Your task to perform on an android device: delete location history Image 0: 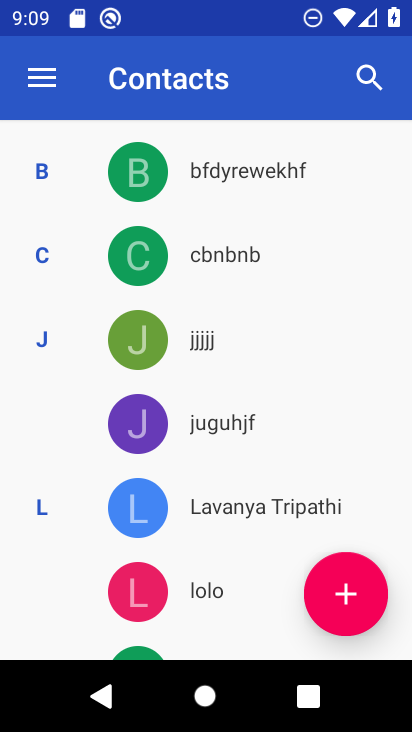
Step 0: press home button
Your task to perform on an android device: delete location history Image 1: 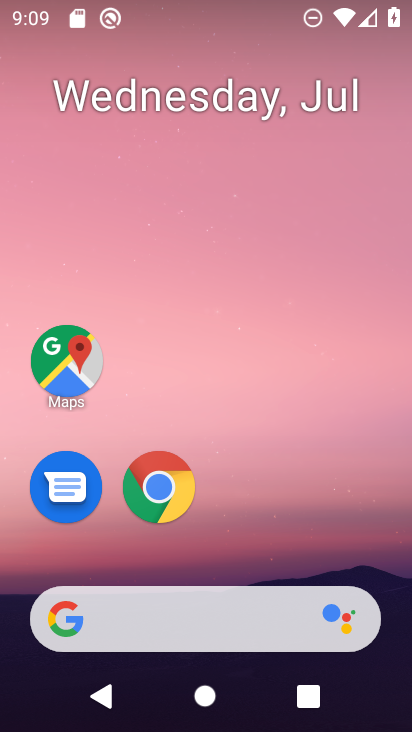
Step 1: drag from (377, 520) to (375, 137)
Your task to perform on an android device: delete location history Image 2: 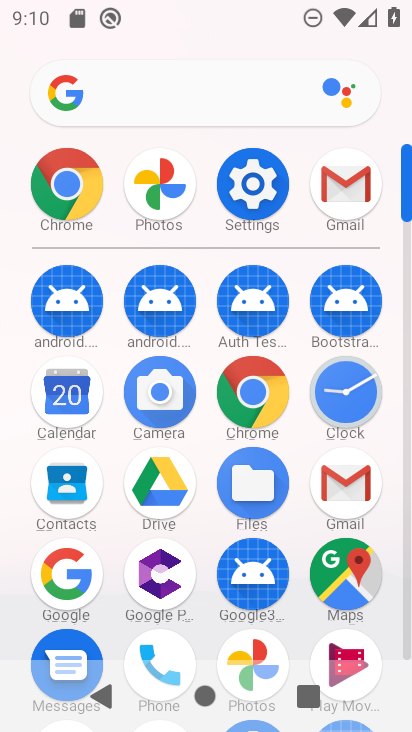
Step 2: click (346, 571)
Your task to perform on an android device: delete location history Image 3: 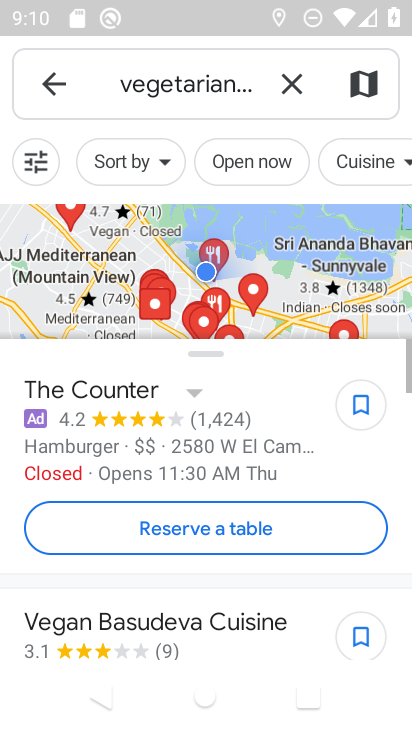
Step 3: press back button
Your task to perform on an android device: delete location history Image 4: 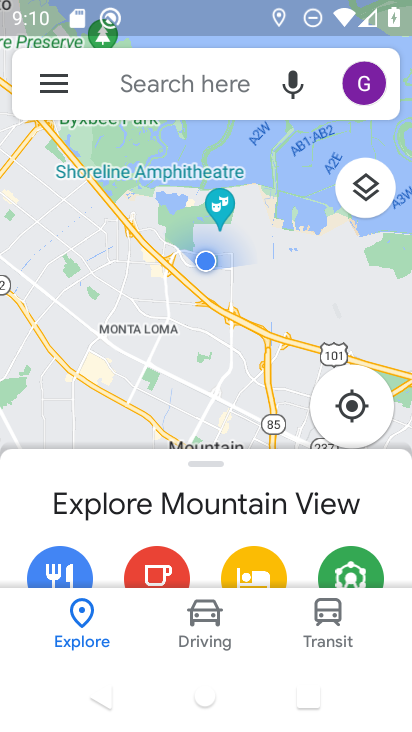
Step 4: click (50, 83)
Your task to perform on an android device: delete location history Image 5: 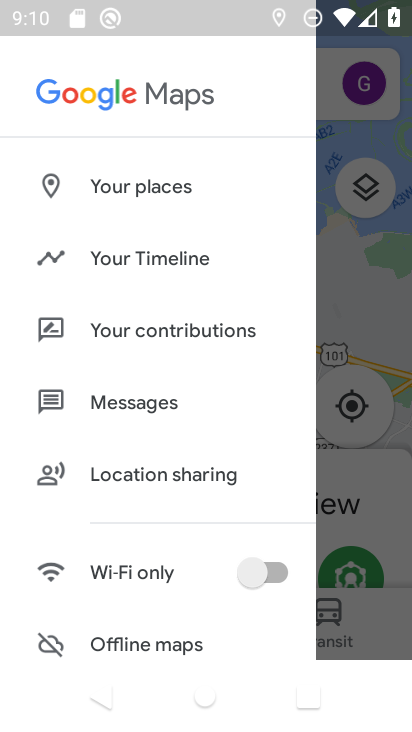
Step 5: click (142, 254)
Your task to perform on an android device: delete location history Image 6: 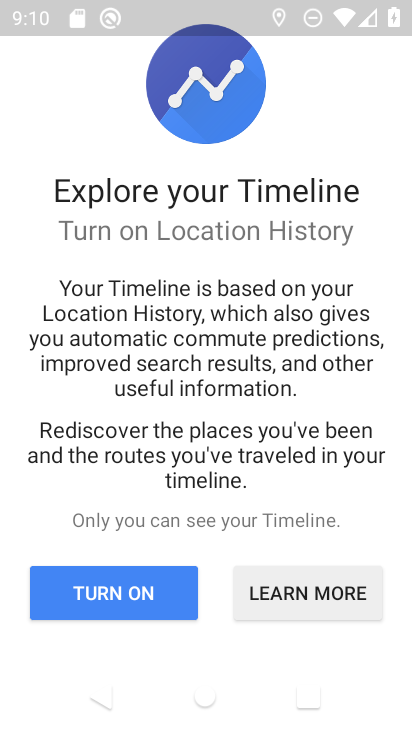
Step 6: drag from (237, 646) to (242, 465)
Your task to perform on an android device: delete location history Image 7: 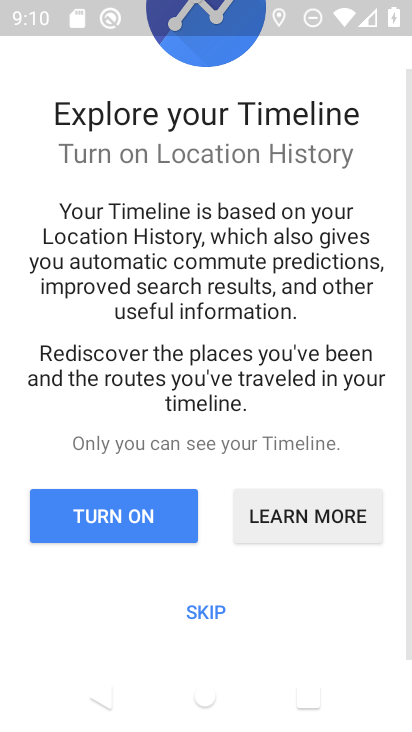
Step 7: click (240, 615)
Your task to perform on an android device: delete location history Image 8: 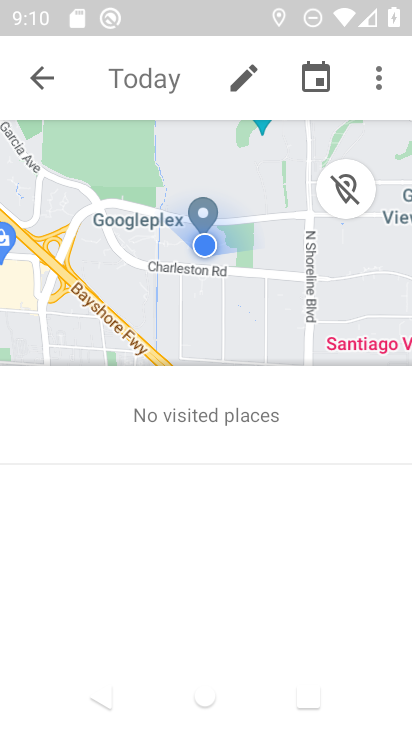
Step 8: click (377, 83)
Your task to perform on an android device: delete location history Image 9: 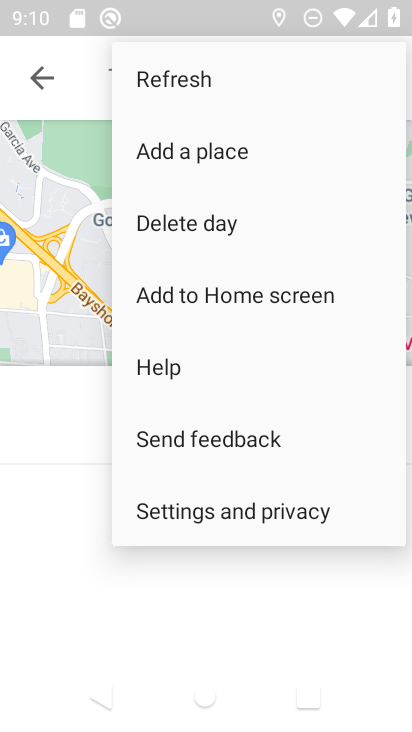
Step 9: click (343, 508)
Your task to perform on an android device: delete location history Image 10: 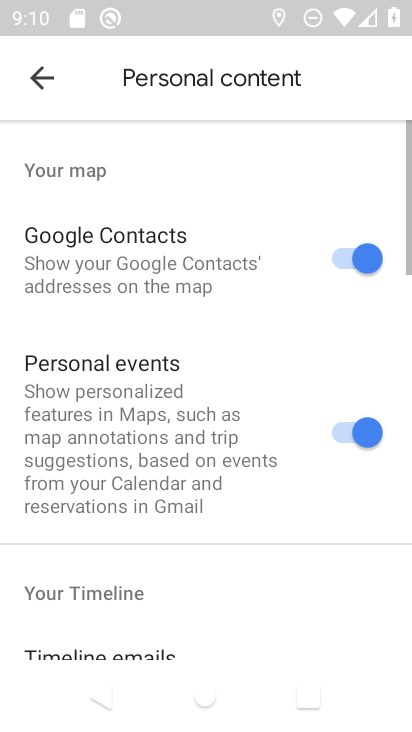
Step 10: drag from (343, 533) to (342, 465)
Your task to perform on an android device: delete location history Image 11: 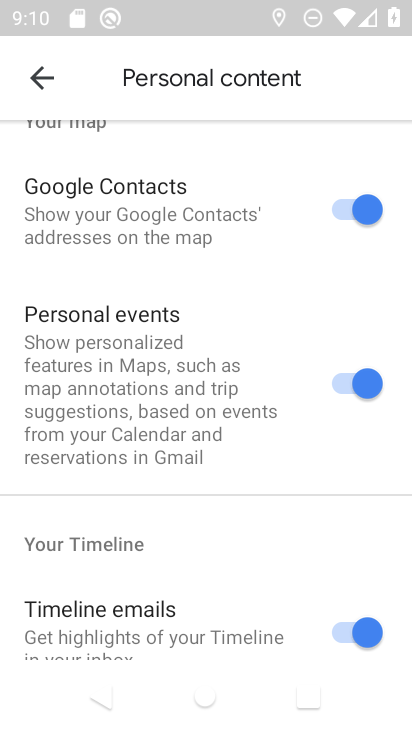
Step 11: drag from (334, 519) to (334, 429)
Your task to perform on an android device: delete location history Image 12: 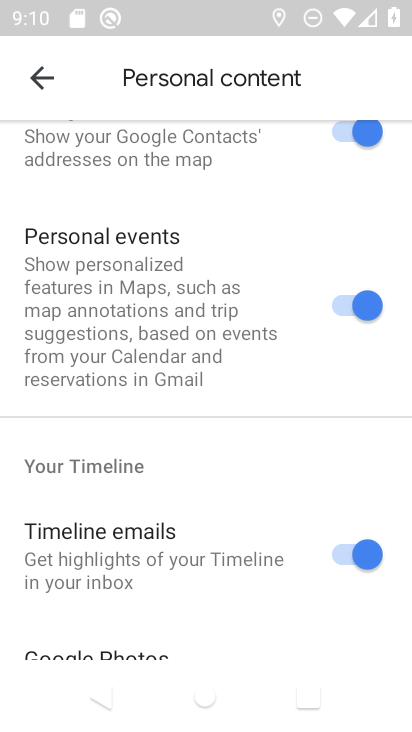
Step 12: drag from (318, 542) to (317, 433)
Your task to perform on an android device: delete location history Image 13: 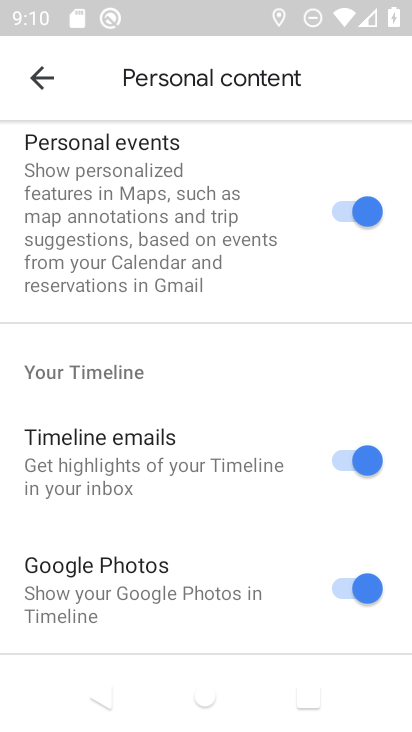
Step 13: drag from (295, 588) to (299, 478)
Your task to perform on an android device: delete location history Image 14: 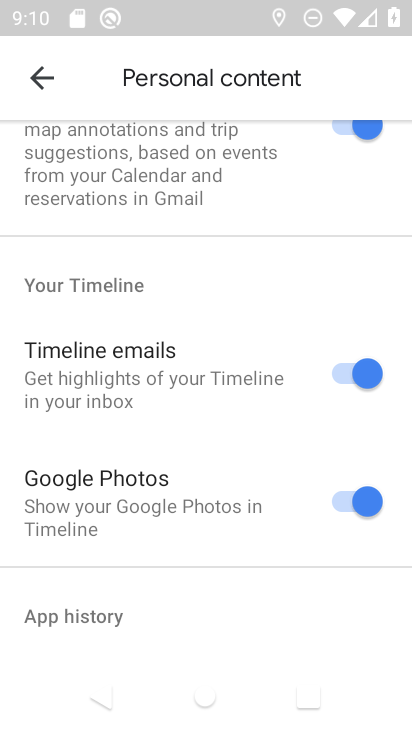
Step 14: drag from (297, 567) to (298, 513)
Your task to perform on an android device: delete location history Image 15: 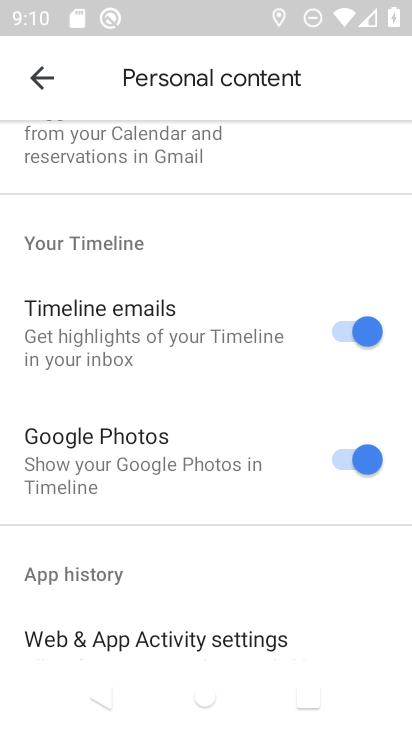
Step 15: drag from (291, 578) to (290, 508)
Your task to perform on an android device: delete location history Image 16: 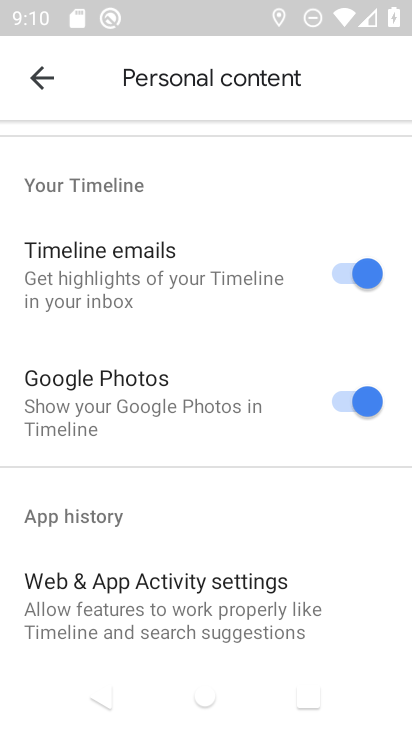
Step 16: drag from (257, 511) to (267, 417)
Your task to perform on an android device: delete location history Image 17: 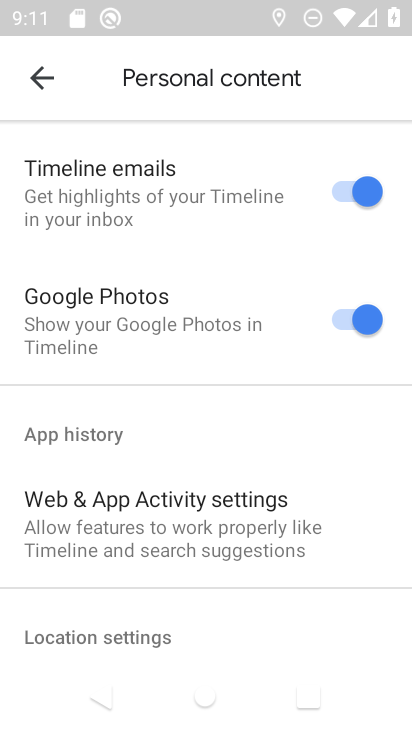
Step 17: drag from (283, 595) to (284, 467)
Your task to perform on an android device: delete location history Image 18: 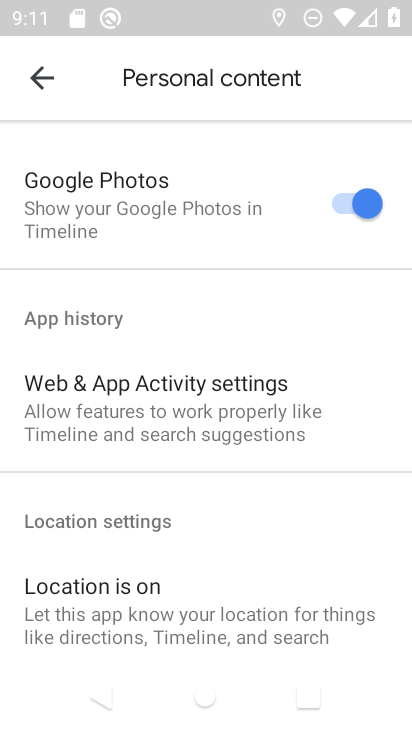
Step 18: drag from (266, 584) to (272, 336)
Your task to perform on an android device: delete location history Image 19: 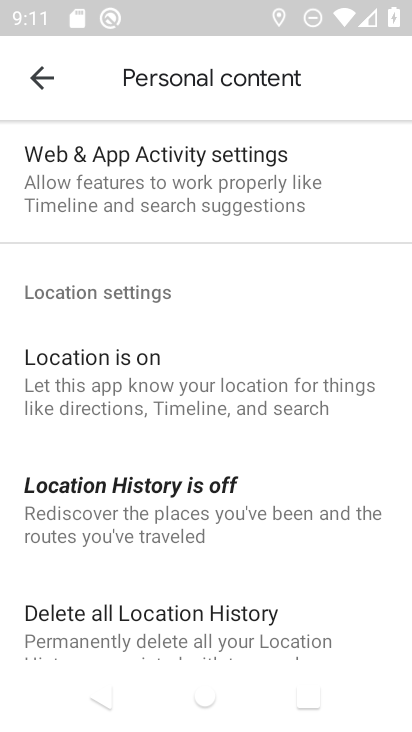
Step 19: drag from (293, 567) to (294, 419)
Your task to perform on an android device: delete location history Image 20: 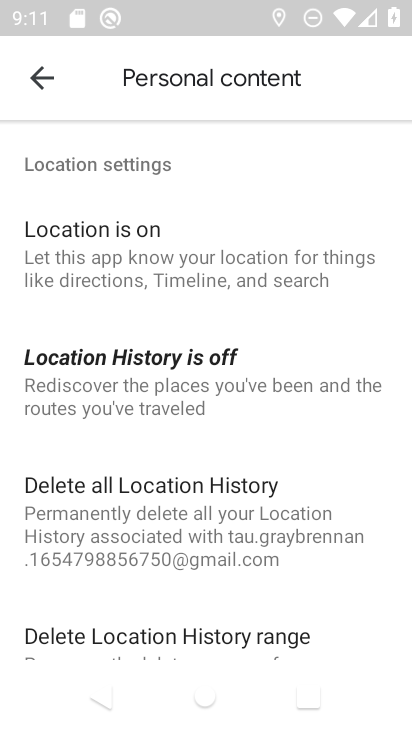
Step 20: click (280, 524)
Your task to perform on an android device: delete location history Image 21: 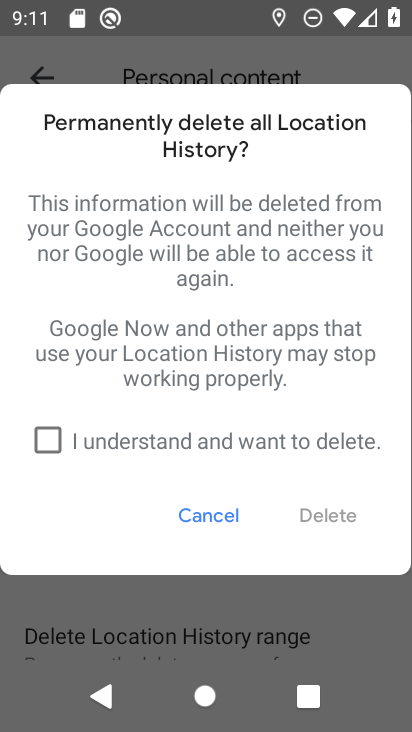
Step 21: click (49, 434)
Your task to perform on an android device: delete location history Image 22: 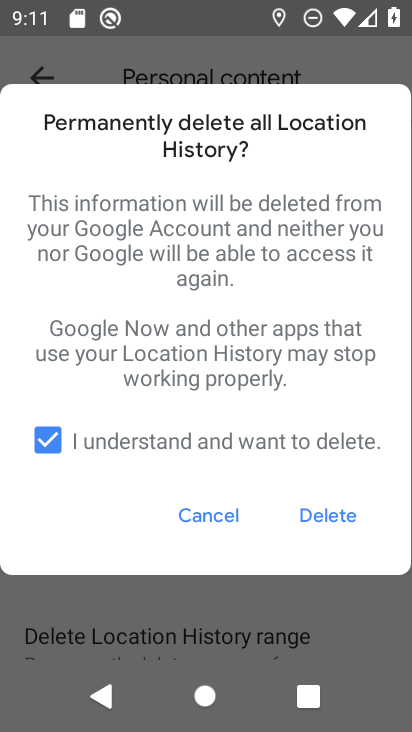
Step 22: click (349, 513)
Your task to perform on an android device: delete location history Image 23: 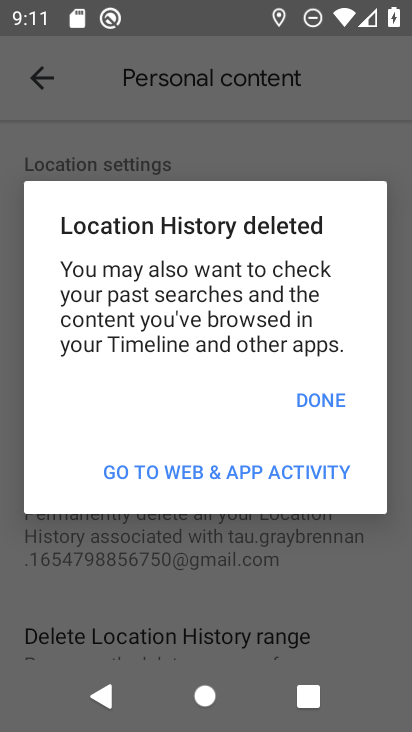
Step 23: task complete